Your task to perform on an android device: Open calendar and show me the third week of next month Image 0: 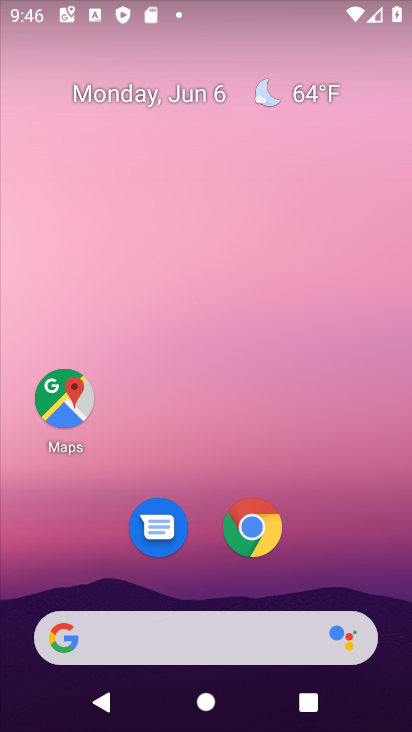
Step 0: drag from (218, 583) to (209, 210)
Your task to perform on an android device: Open calendar and show me the third week of next month Image 1: 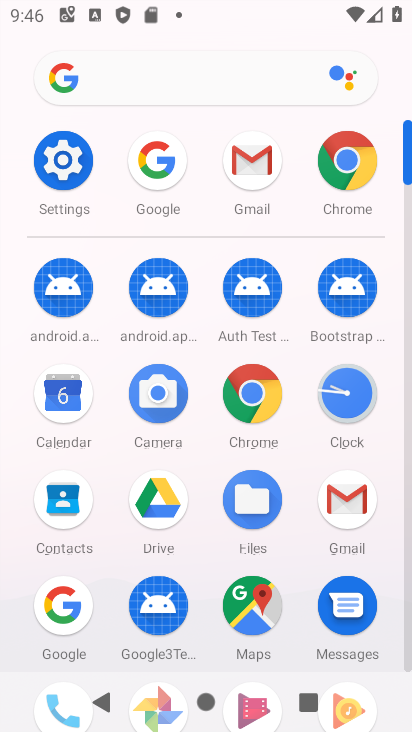
Step 1: click (73, 414)
Your task to perform on an android device: Open calendar and show me the third week of next month Image 2: 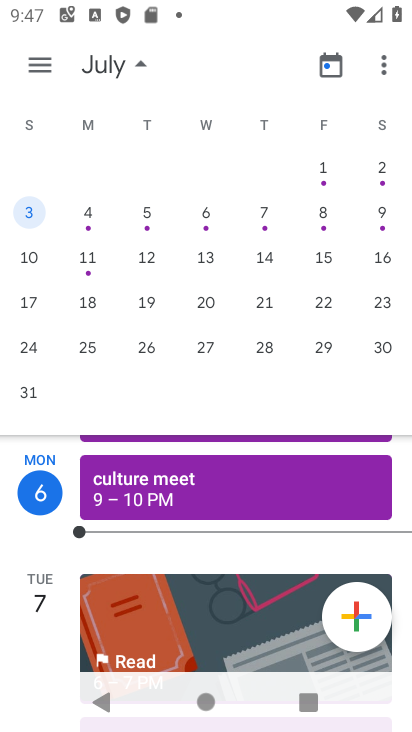
Step 2: click (31, 305)
Your task to perform on an android device: Open calendar and show me the third week of next month Image 3: 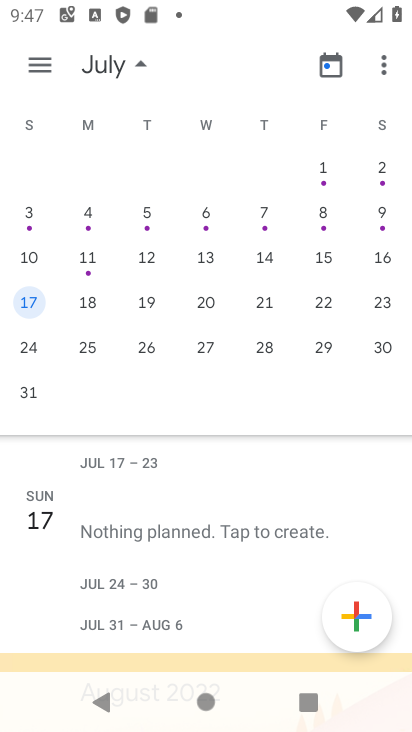
Step 3: task complete